Your task to perform on an android device: Open the phone app and click the voicemail tab. Image 0: 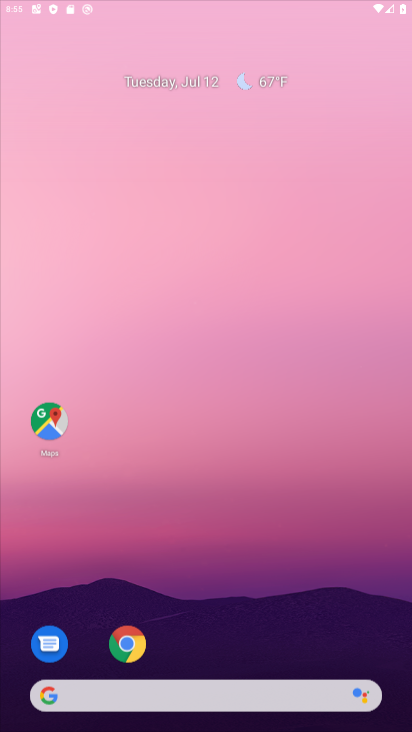
Step 0: click (273, 345)
Your task to perform on an android device: Open the phone app and click the voicemail tab. Image 1: 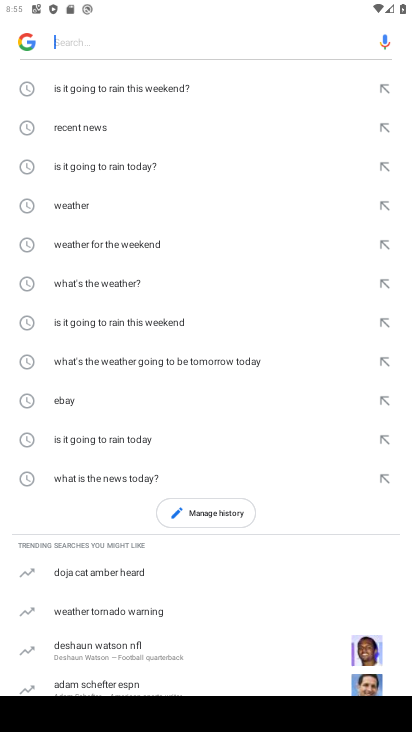
Step 1: drag from (121, 634) to (185, 310)
Your task to perform on an android device: Open the phone app and click the voicemail tab. Image 2: 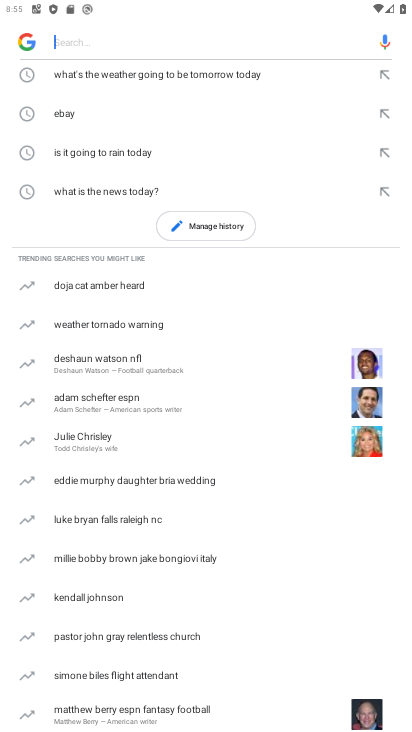
Step 2: press home button
Your task to perform on an android device: Open the phone app and click the voicemail tab. Image 3: 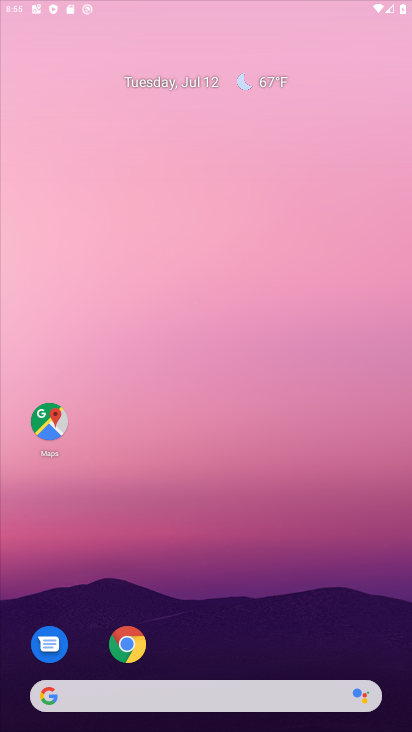
Step 3: drag from (230, 614) to (277, 38)
Your task to perform on an android device: Open the phone app and click the voicemail tab. Image 4: 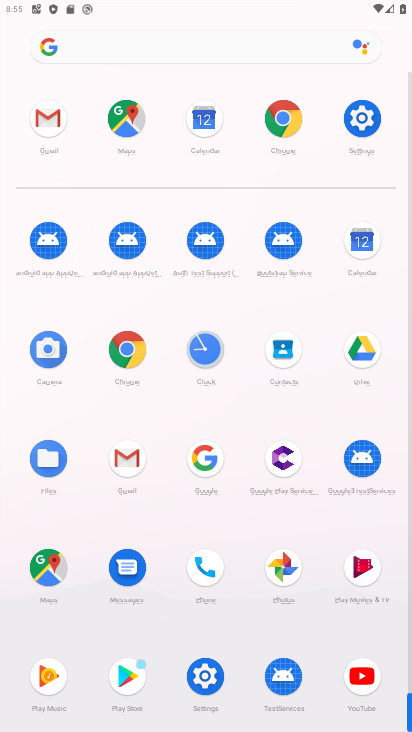
Step 4: click (132, 455)
Your task to perform on an android device: Open the phone app and click the voicemail tab. Image 5: 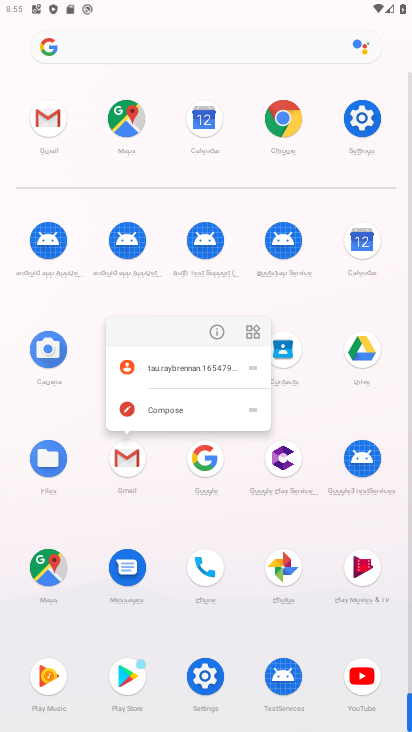
Step 5: click (205, 569)
Your task to perform on an android device: Open the phone app and click the voicemail tab. Image 6: 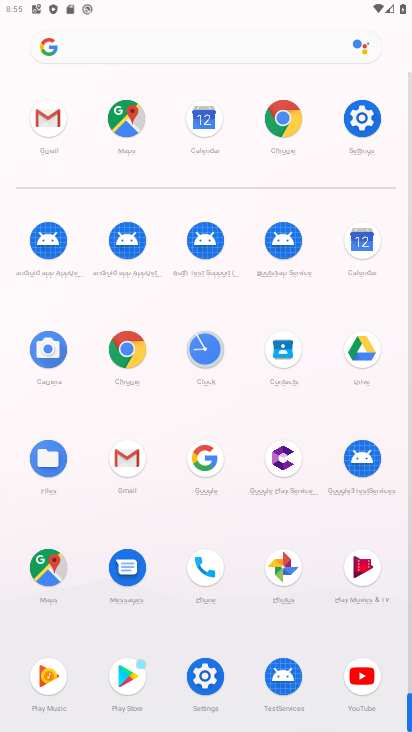
Step 6: click (194, 555)
Your task to perform on an android device: Open the phone app and click the voicemail tab. Image 7: 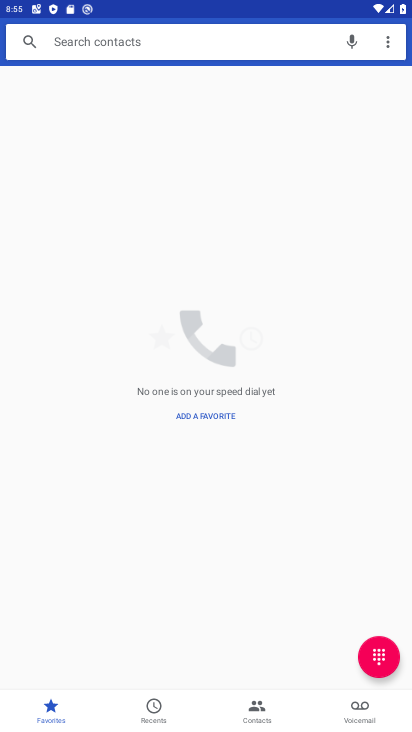
Step 7: drag from (228, 577) to (237, 267)
Your task to perform on an android device: Open the phone app and click the voicemail tab. Image 8: 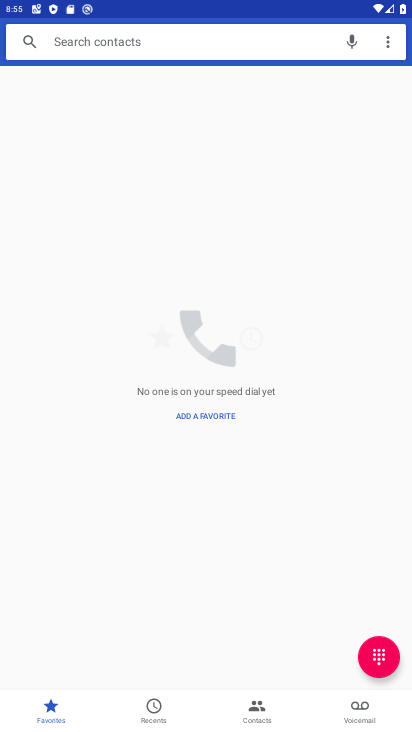
Step 8: click (359, 718)
Your task to perform on an android device: Open the phone app and click the voicemail tab. Image 9: 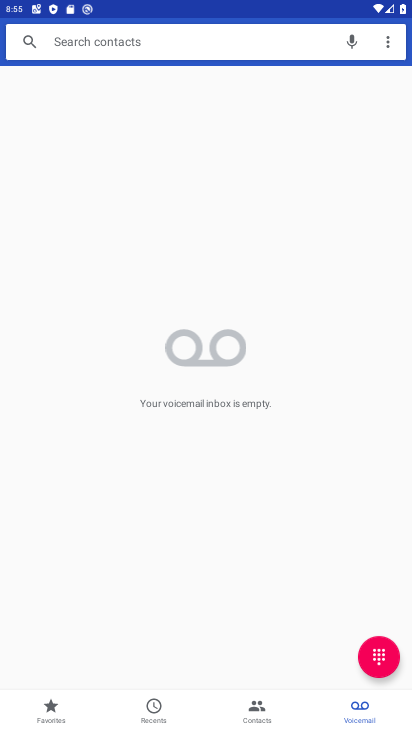
Step 9: task complete